Your task to perform on an android device: uninstall "Speedtest by Ookla" Image 0: 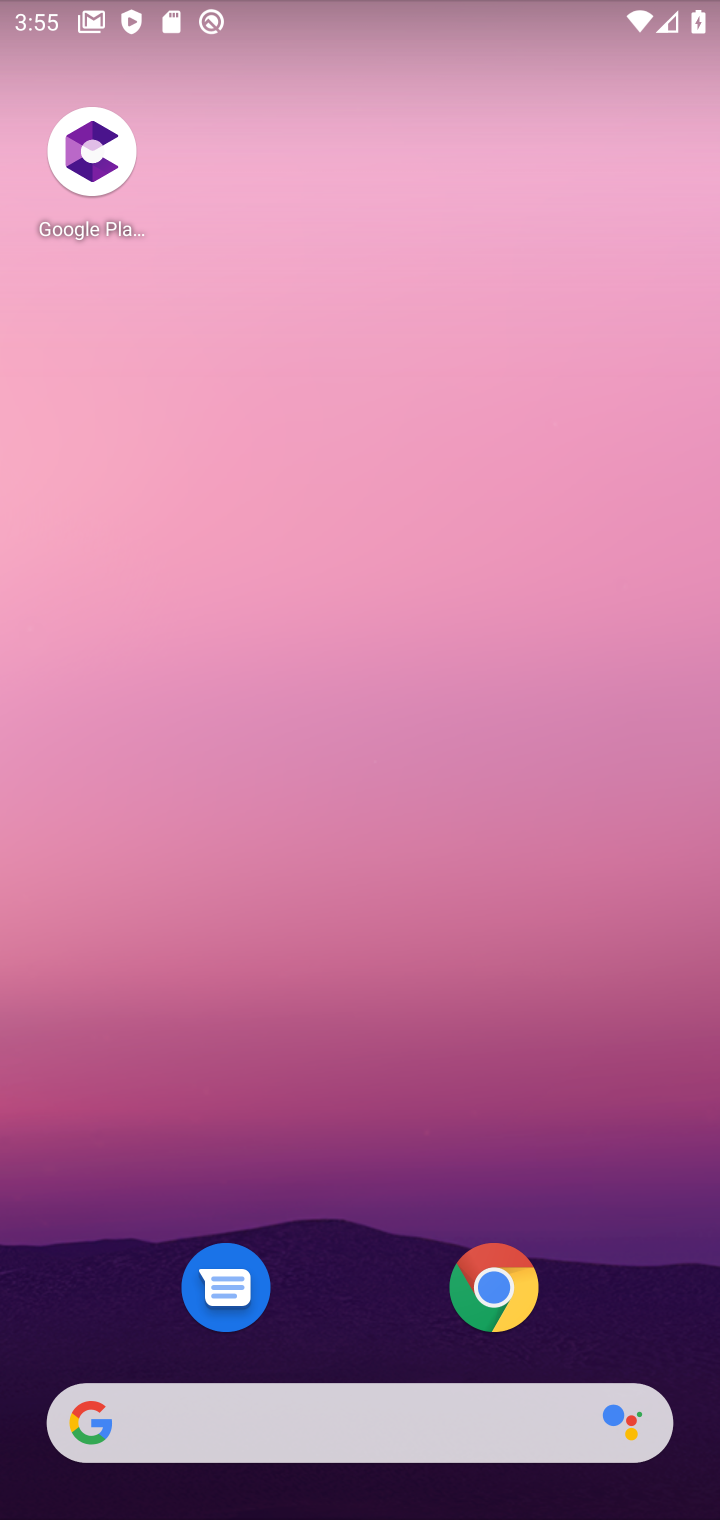
Step 0: drag from (453, 917) to (528, 106)
Your task to perform on an android device: uninstall "Speedtest by Ookla" Image 1: 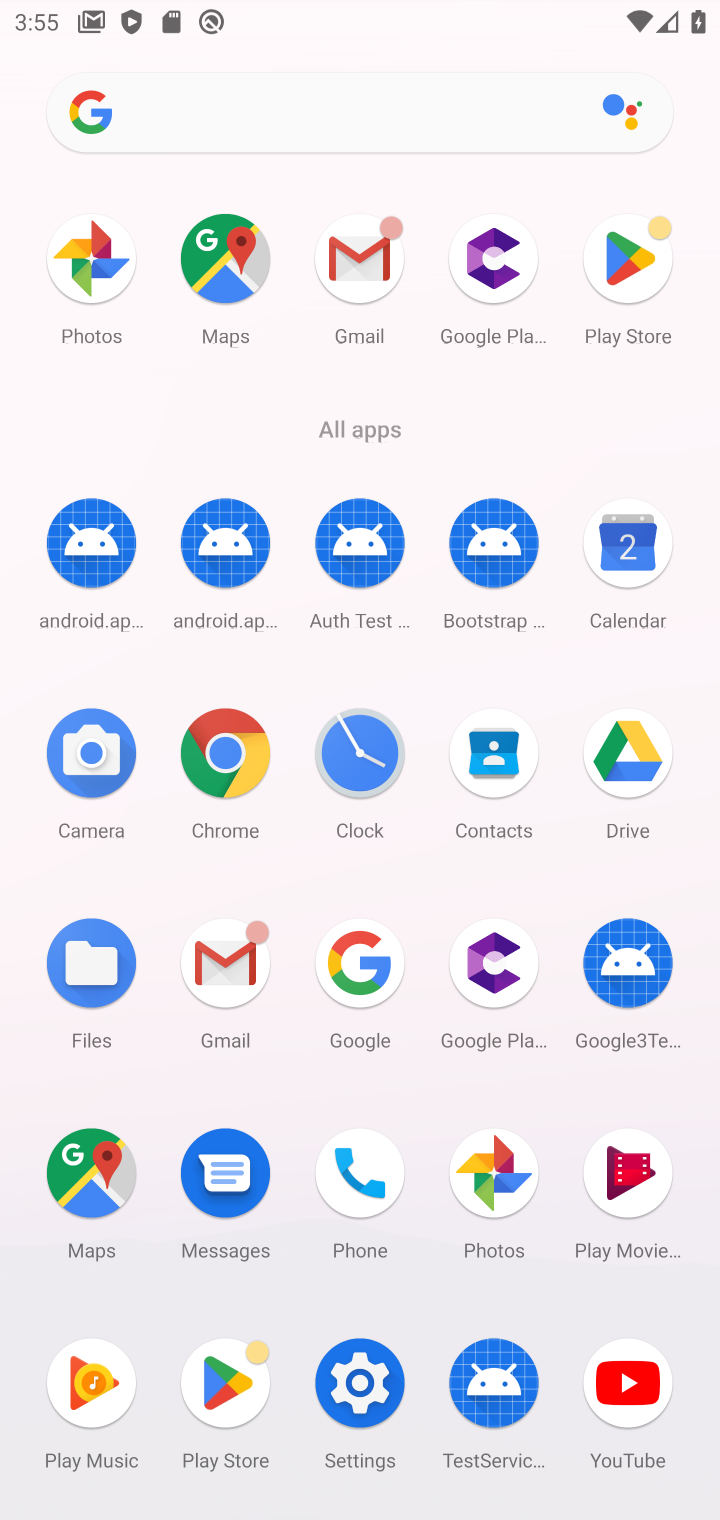
Step 1: click (217, 1361)
Your task to perform on an android device: uninstall "Speedtest by Ookla" Image 2: 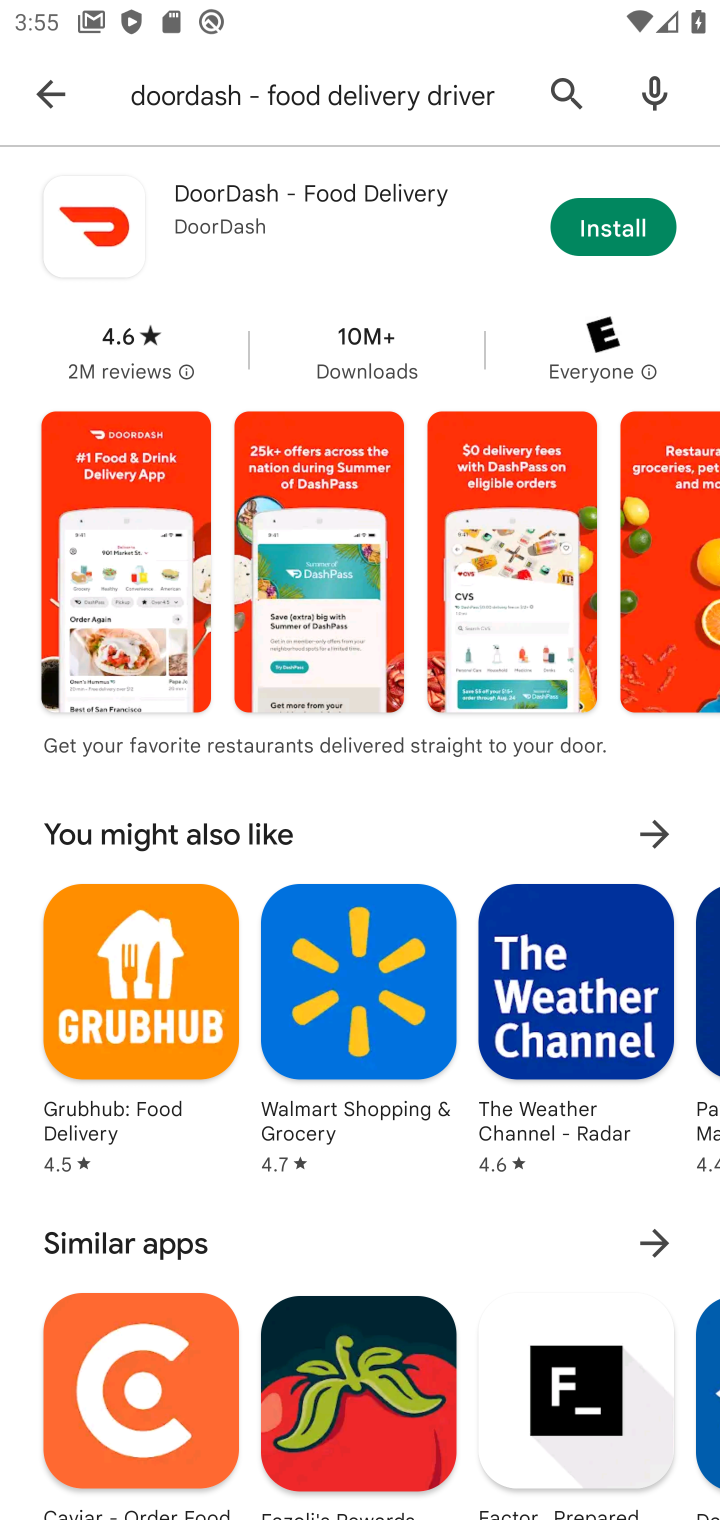
Step 2: click (565, 85)
Your task to perform on an android device: uninstall "Speedtest by Ookla" Image 3: 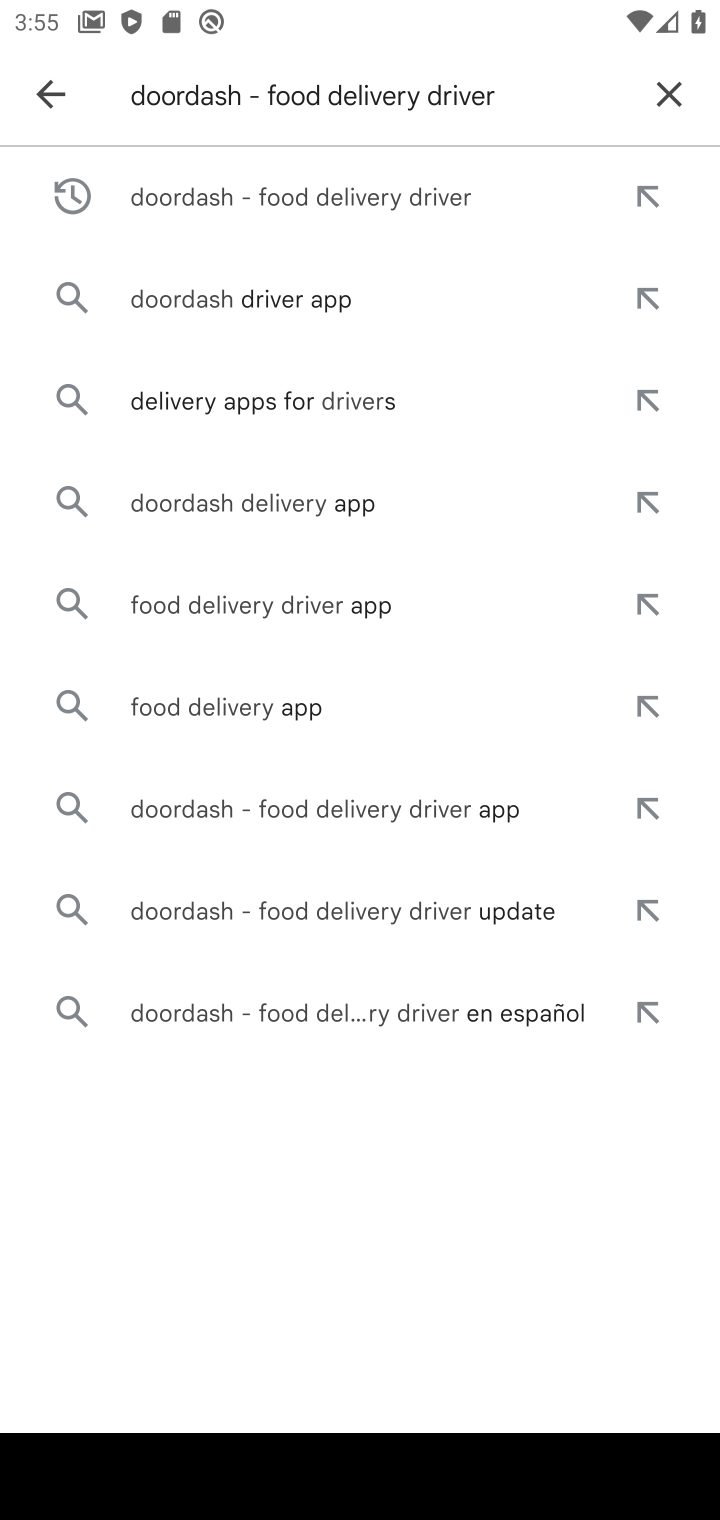
Step 3: click (666, 102)
Your task to perform on an android device: uninstall "Speedtest by Ookla" Image 4: 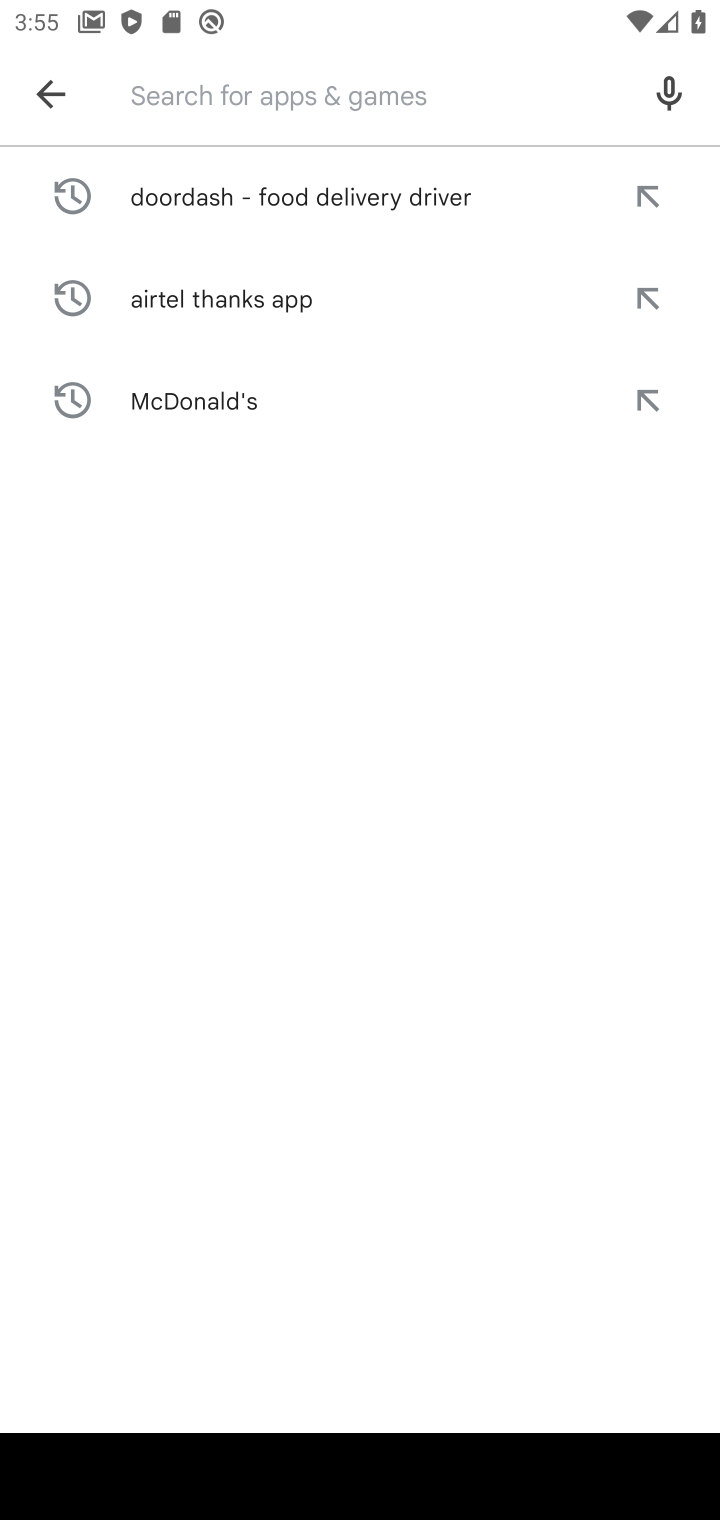
Step 4: type "Speedtest by Ookla"
Your task to perform on an android device: uninstall "Speedtest by Ookla" Image 5: 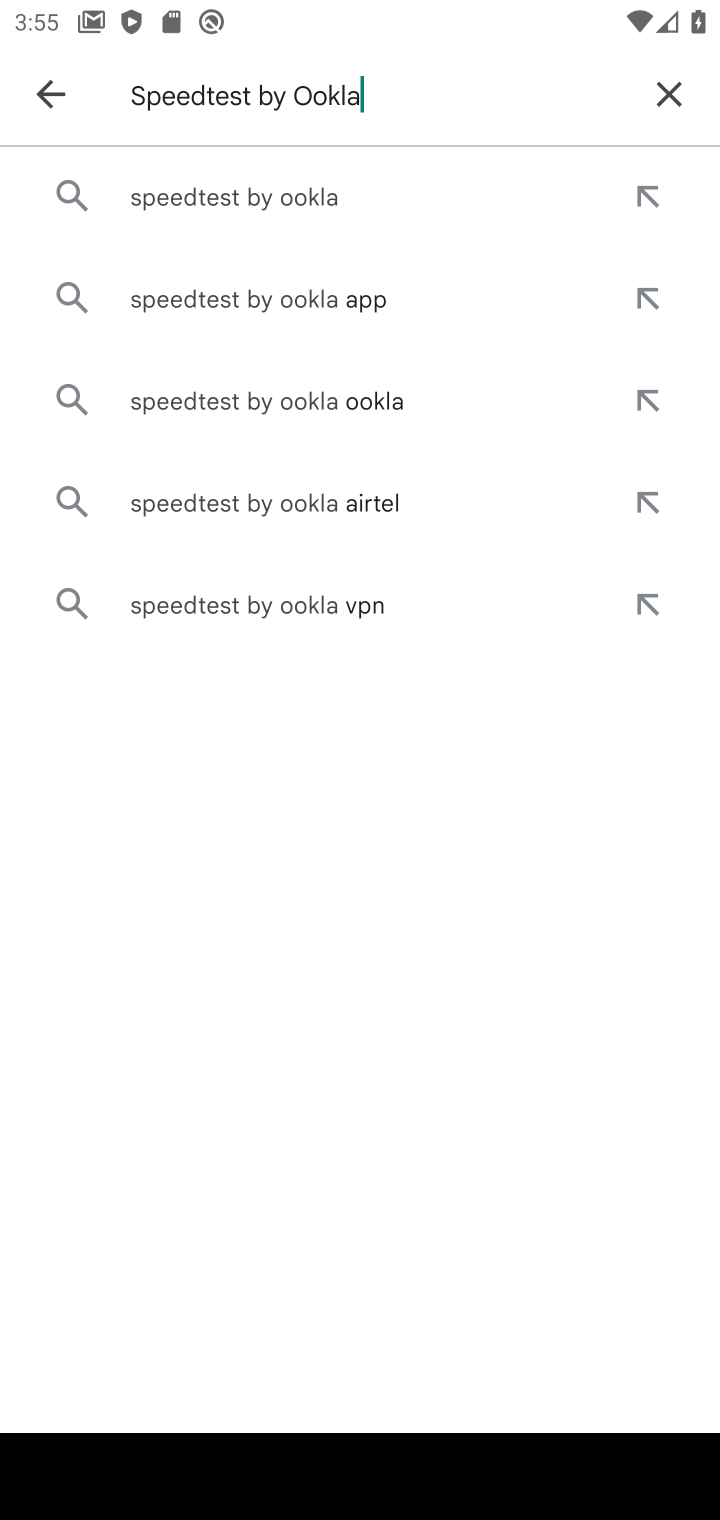
Step 5: click (318, 194)
Your task to perform on an android device: uninstall "Speedtest by Ookla" Image 6: 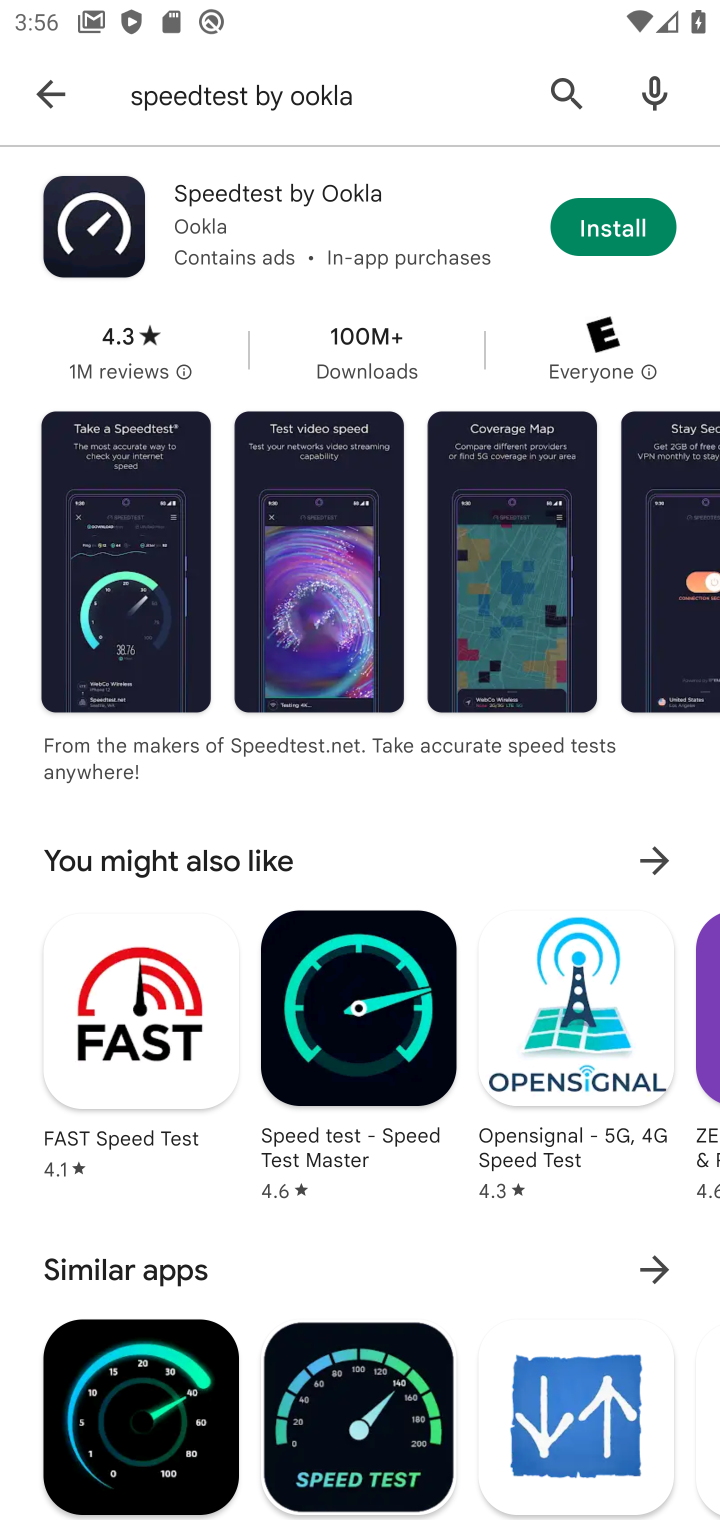
Step 6: task complete